Your task to perform on an android device: see tabs open on other devices in the chrome app Image 0: 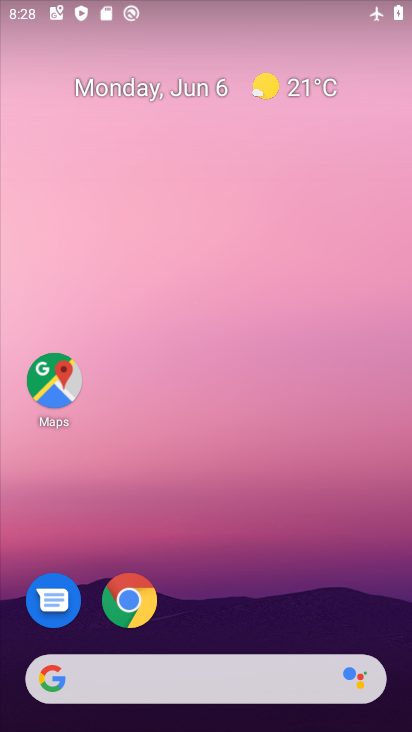
Step 0: click (130, 597)
Your task to perform on an android device: see tabs open on other devices in the chrome app Image 1: 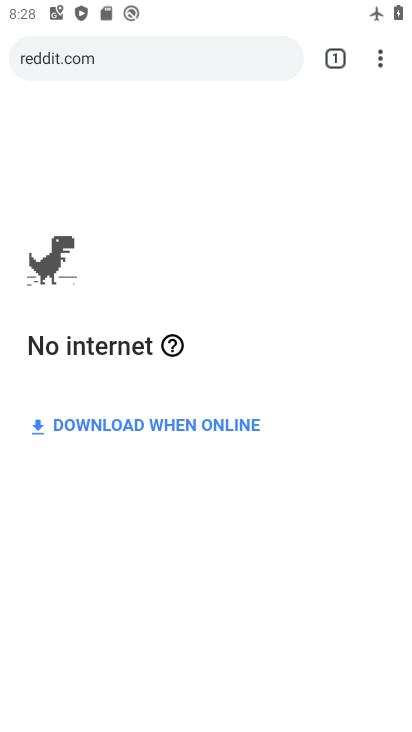
Step 1: click (376, 63)
Your task to perform on an android device: see tabs open on other devices in the chrome app Image 2: 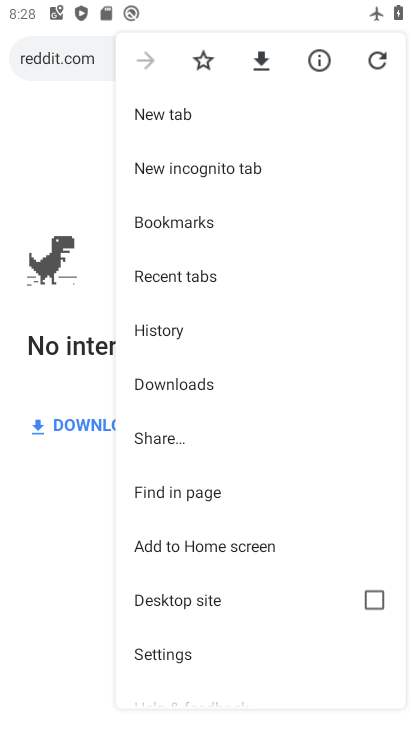
Step 2: click (168, 280)
Your task to perform on an android device: see tabs open on other devices in the chrome app Image 3: 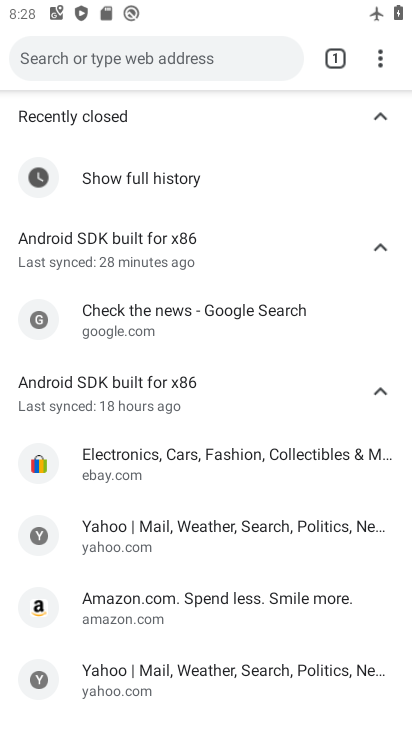
Step 3: task complete